Your task to perform on an android device: install app "Indeed Job Search" Image 0: 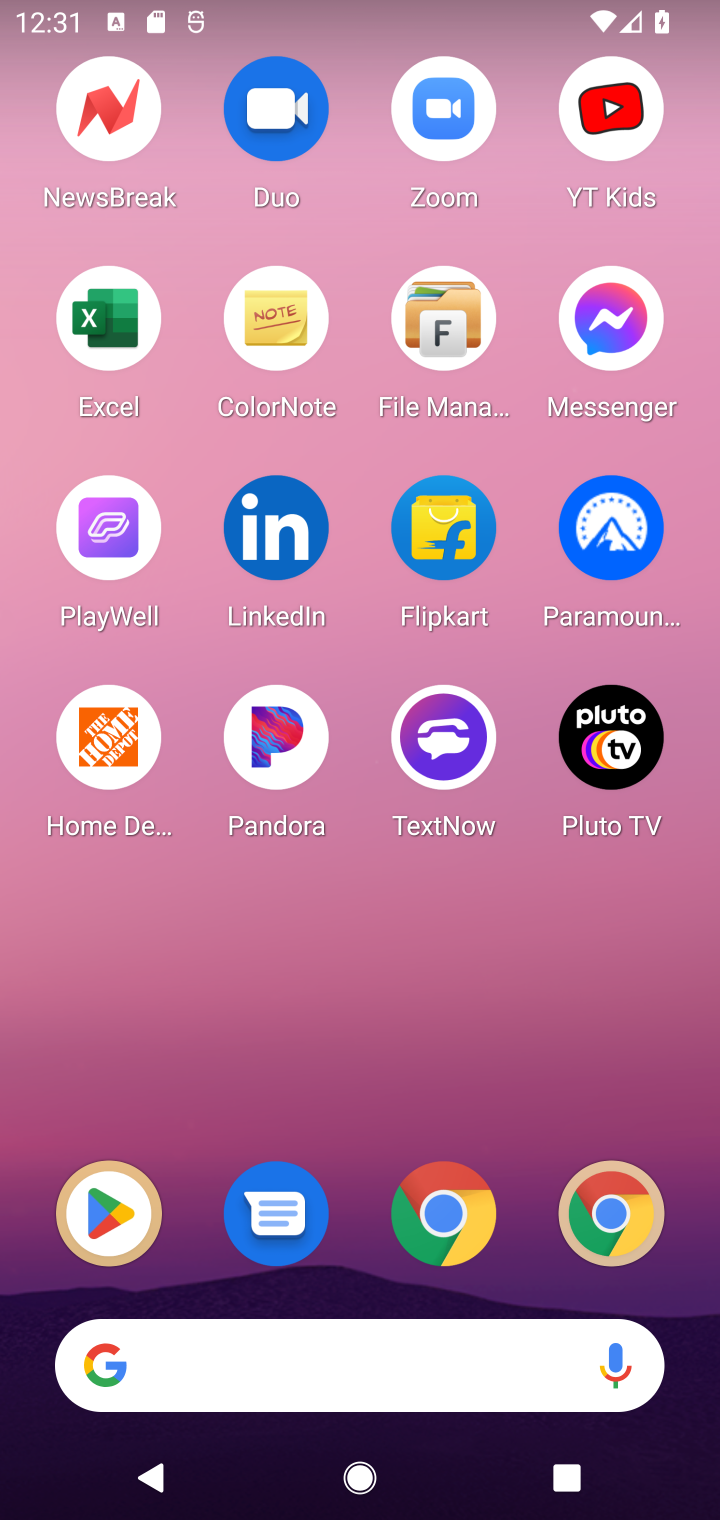
Step 0: drag from (397, 1514) to (428, 90)
Your task to perform on an android device: install app "Indeed Job Search" Image 1: 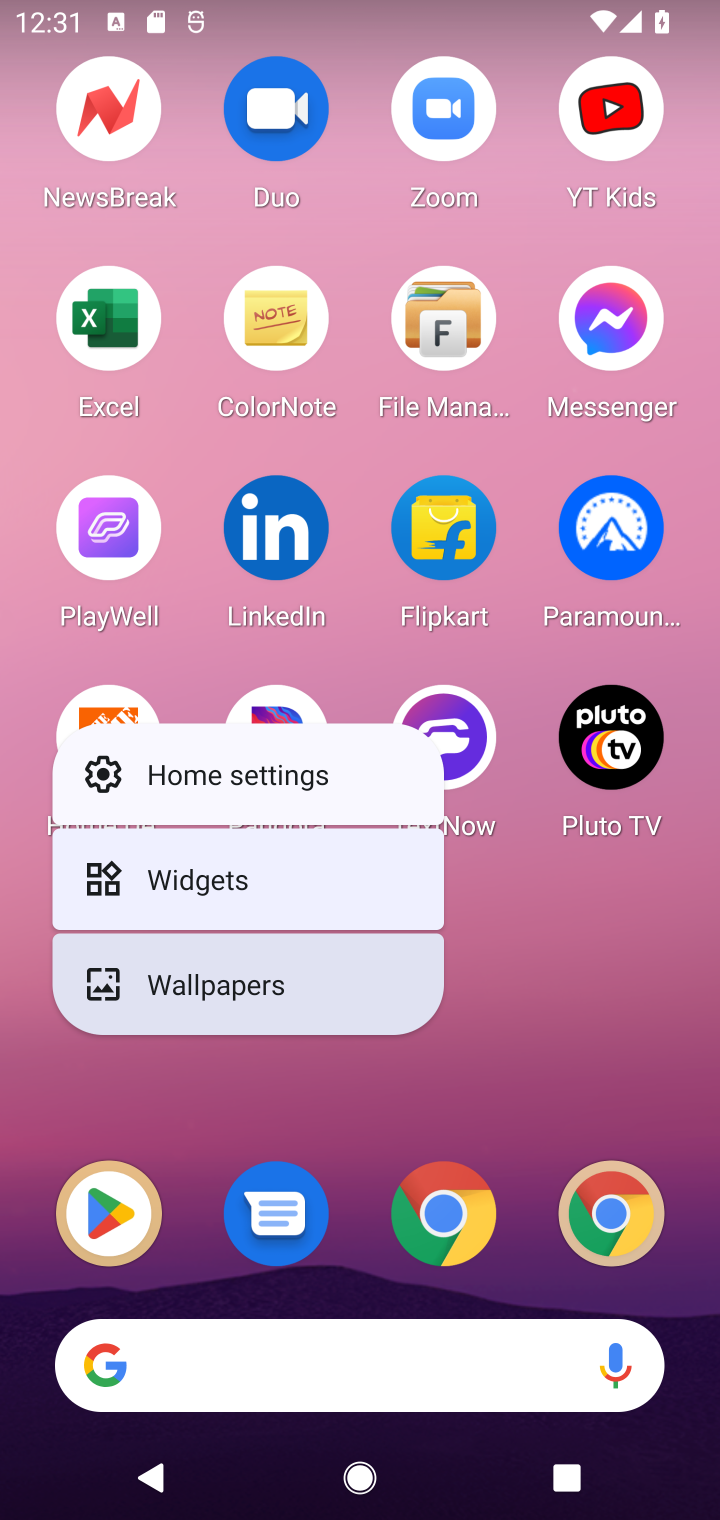
Step 1: click (522, 958)
Your task to perform on an android device: install app "Indeed Job Search" Image 2: 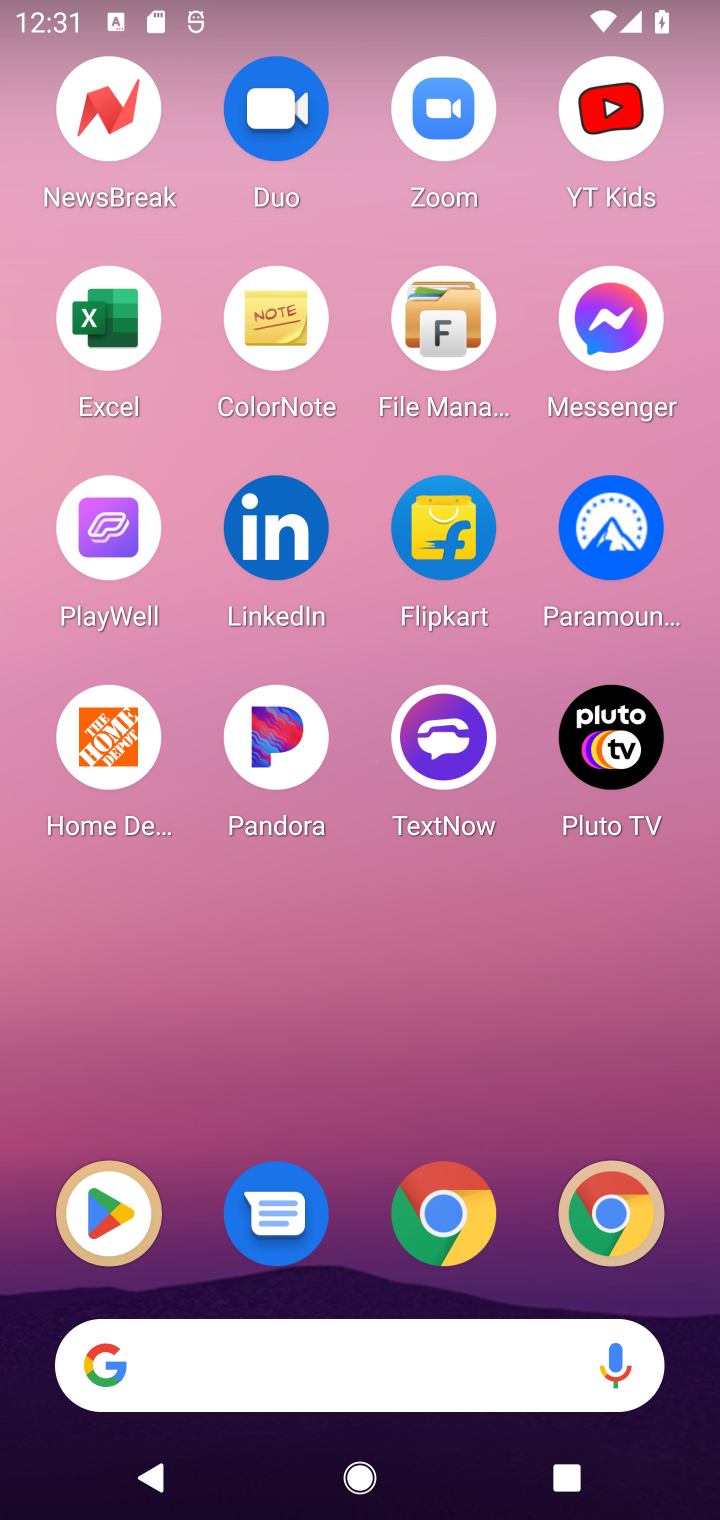
Step 2: drag from (415, 1138) to (339, 165)
Your task to perform on an android device: install app "Indeed Job Search" Image 3: 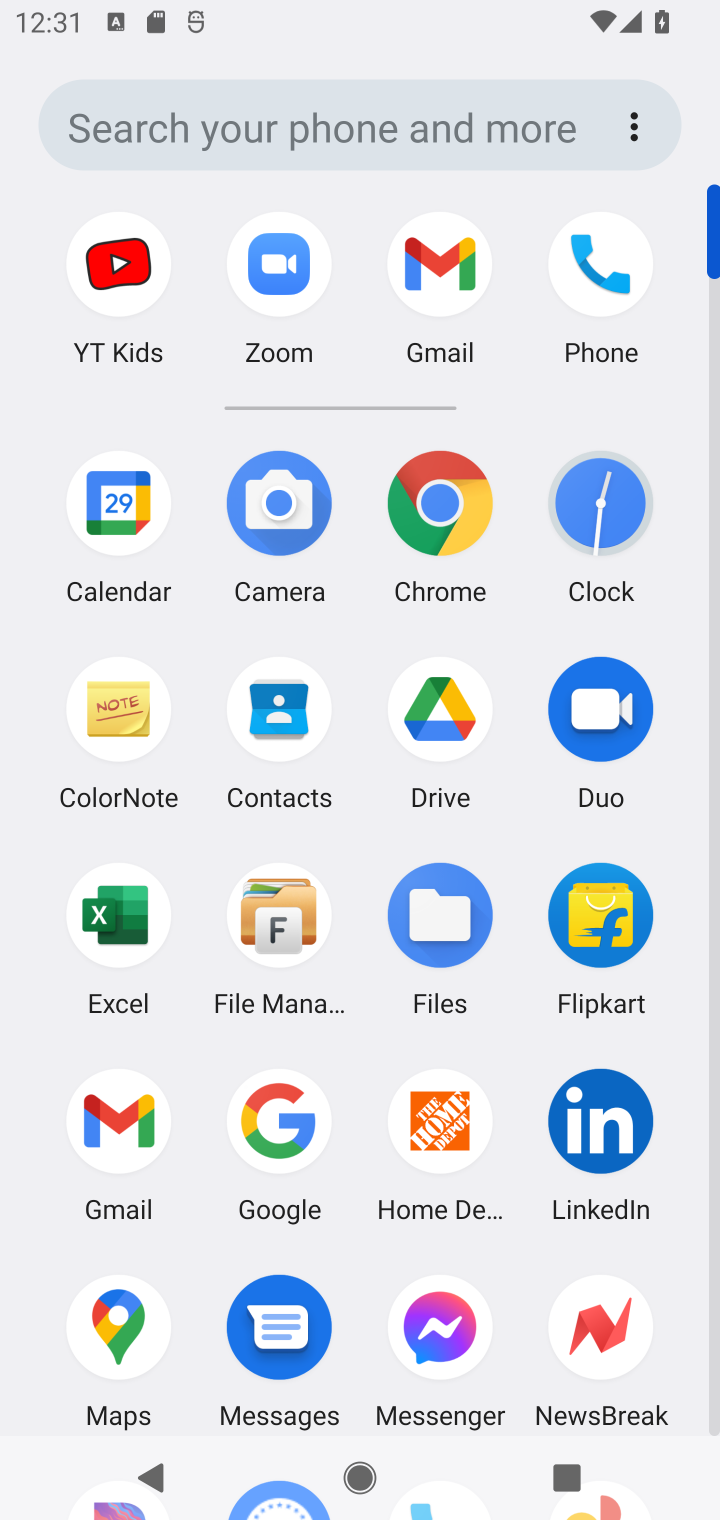
Step 3: drag from (375, 1338) to (461, 582)
Your task to perform on an android device: install app "Indeed Job Search" Image 4: 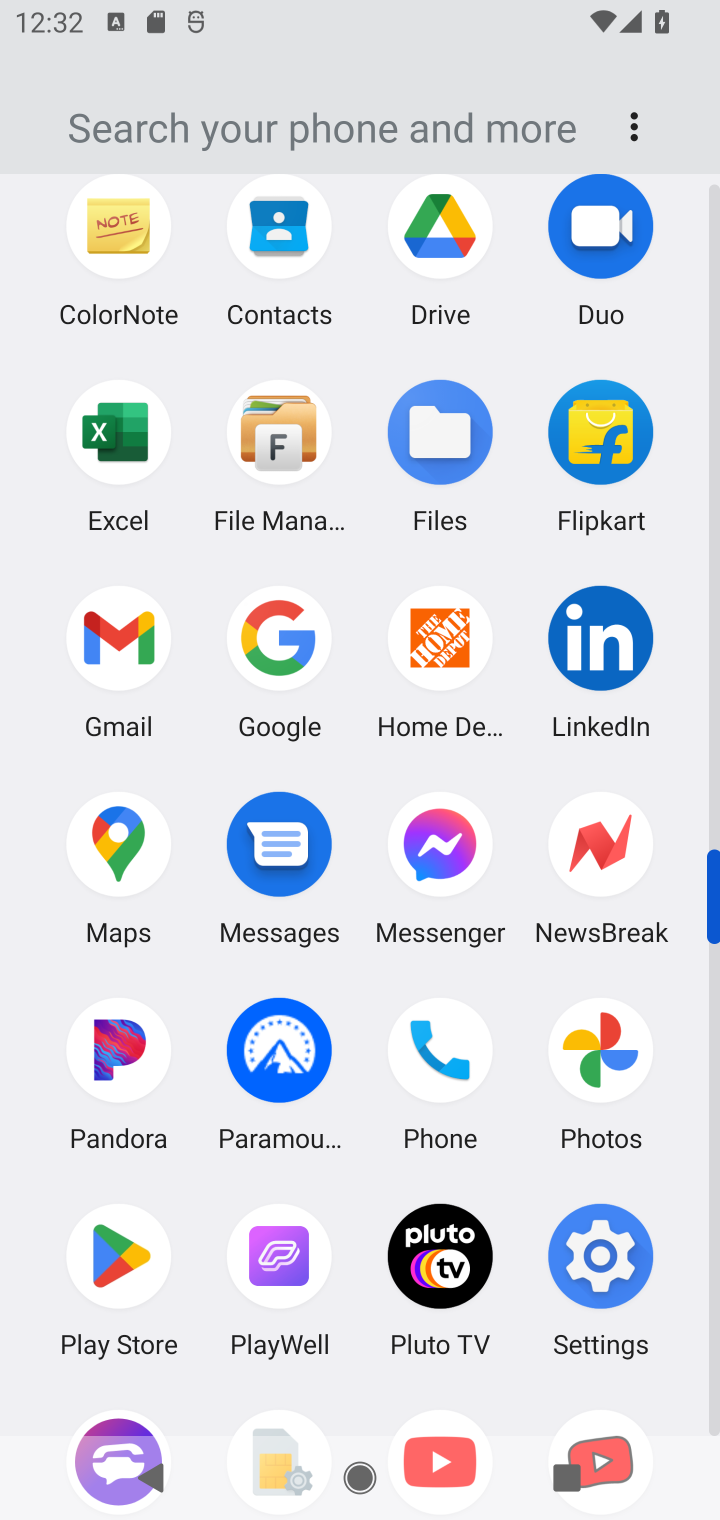
Step 4: click (111, 1258)
Your task to perform on an android device: install app "Indeed Job Search" Image 5: 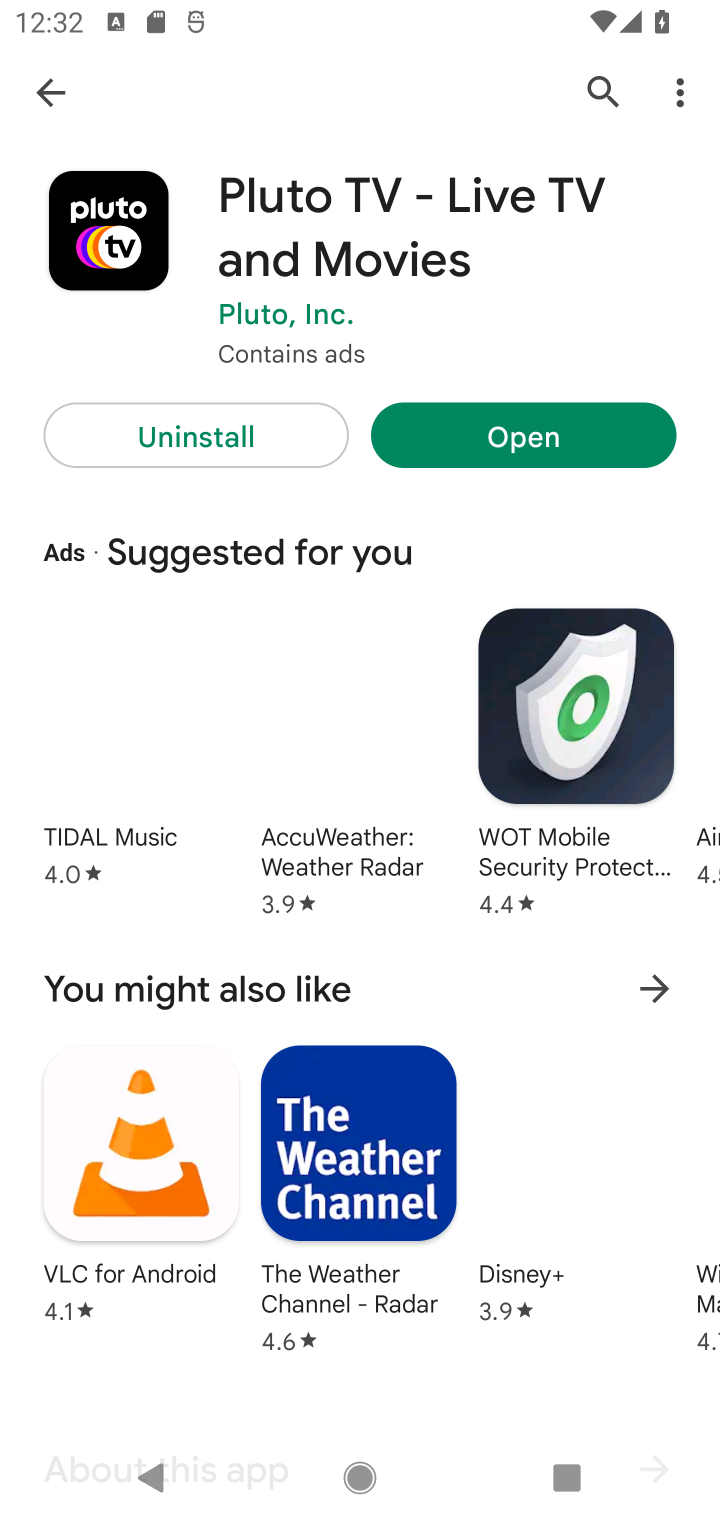
Step 5: click (586, 79)
Your task to perform on an android device: install app "Indeed Job Search" Image 6: 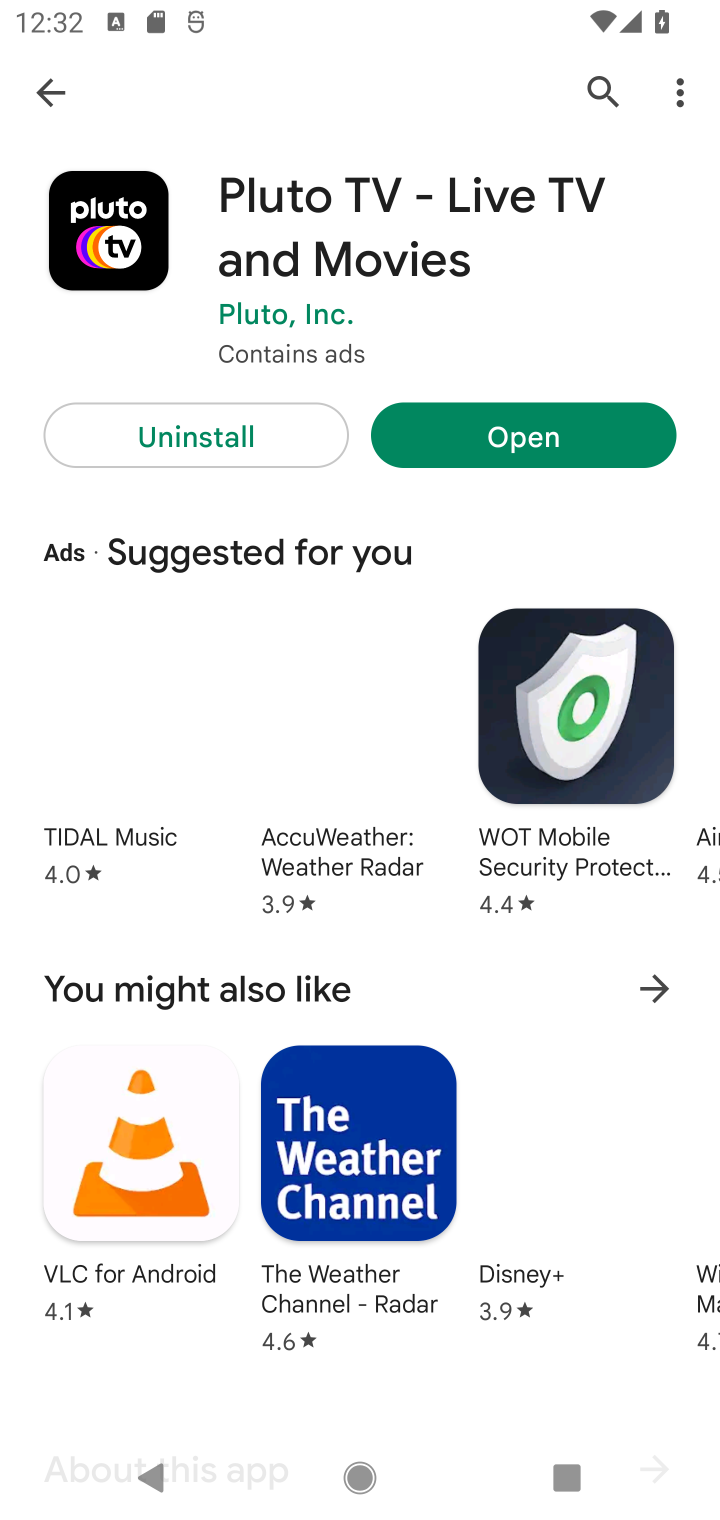
Step 6: click (595, 84)
Your task to perform on an android device: install app "Indeed Job Search" Image 7: 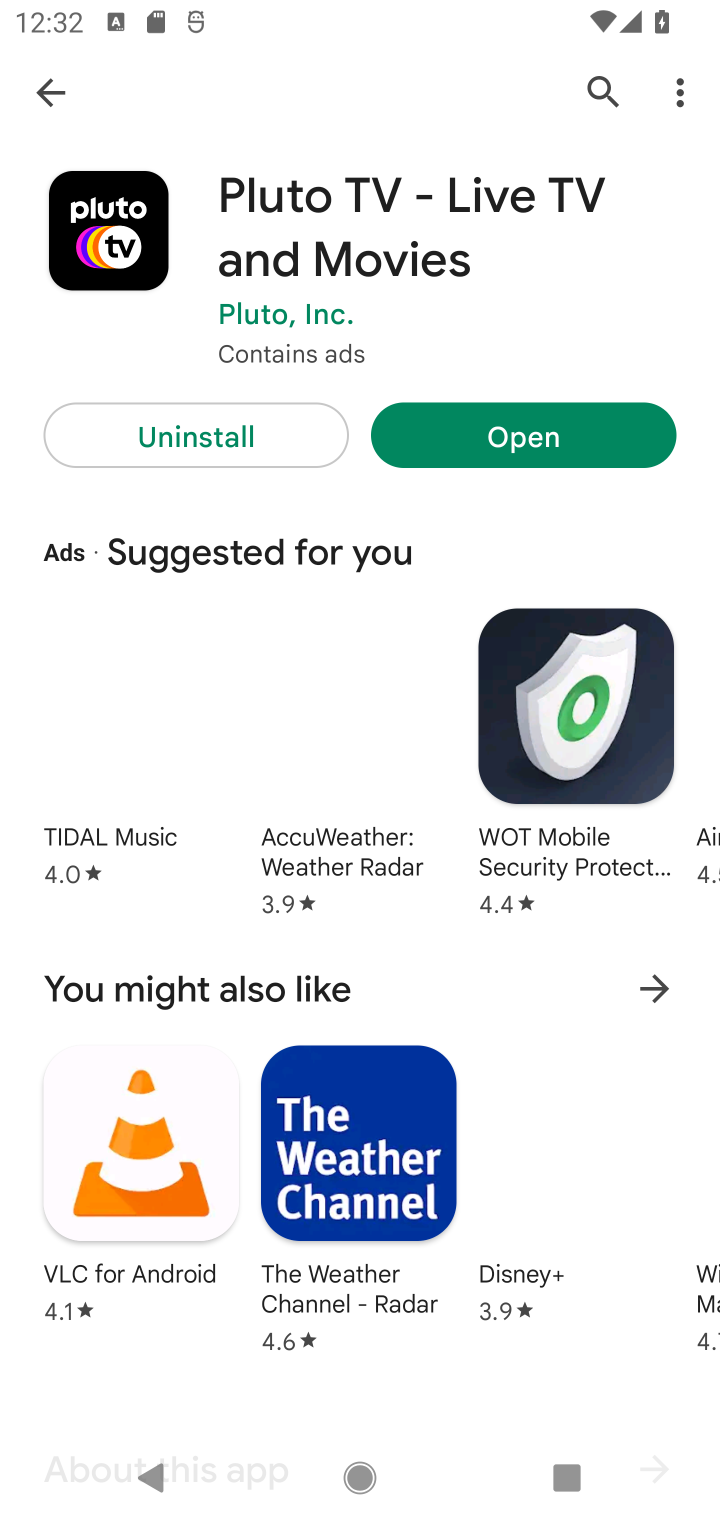
Step 7: click (592, 82)
Your task to perform on an android device: install app "Indeed Job Search" Image 8: 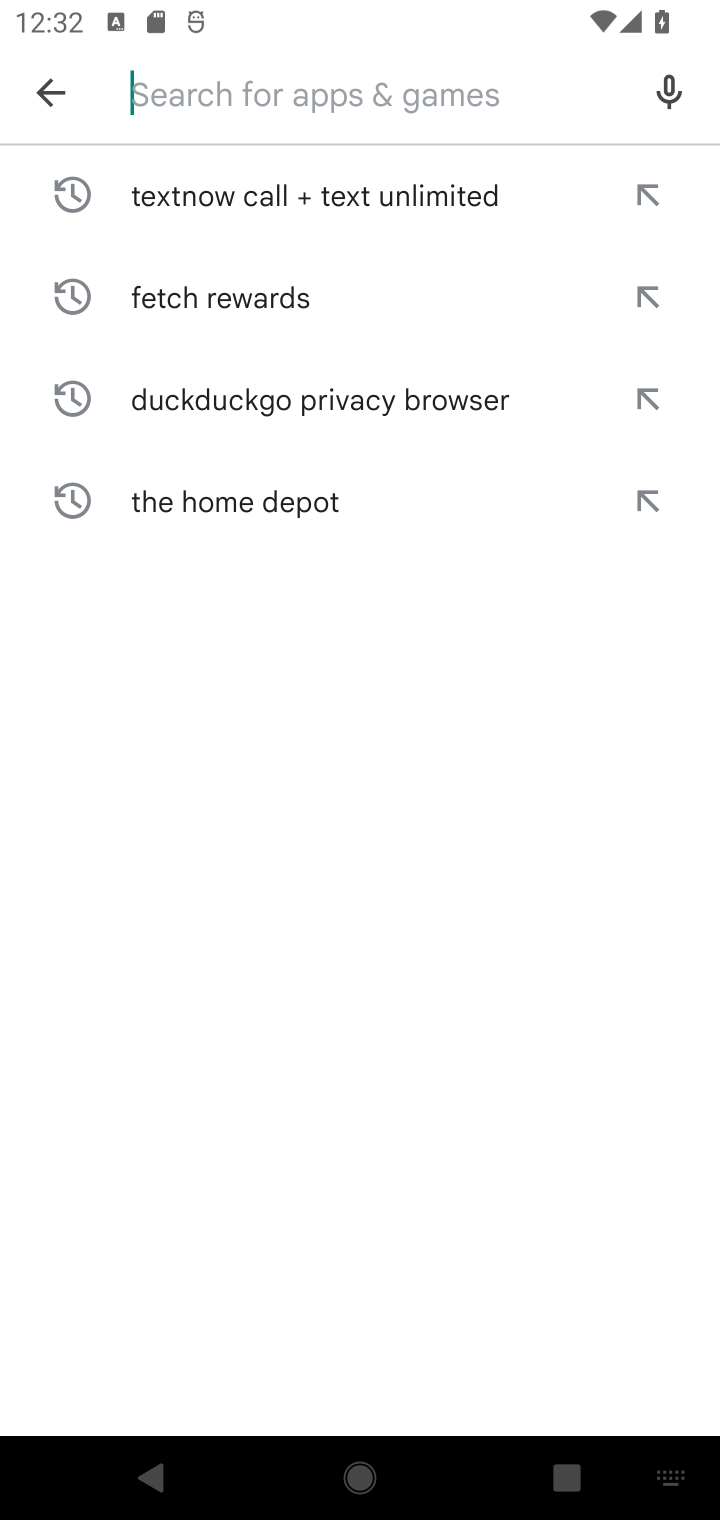
Step 8: type "Indeed Job Search"
Your task to perform on an android device: install app "Indeed Job Search" Image 9: 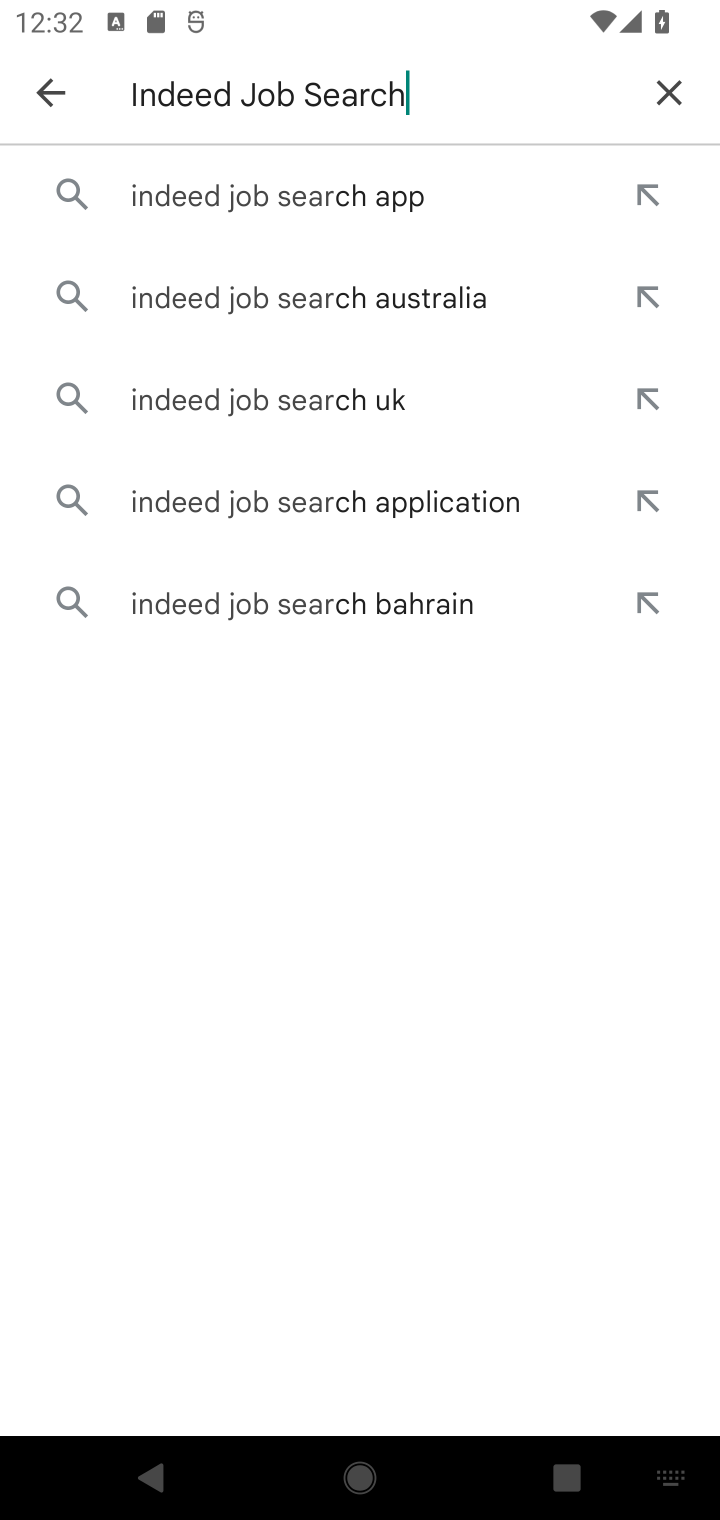
Step 9: type ""
Your task to perform on an android device: install app "Indeed Job Search" Image 10: 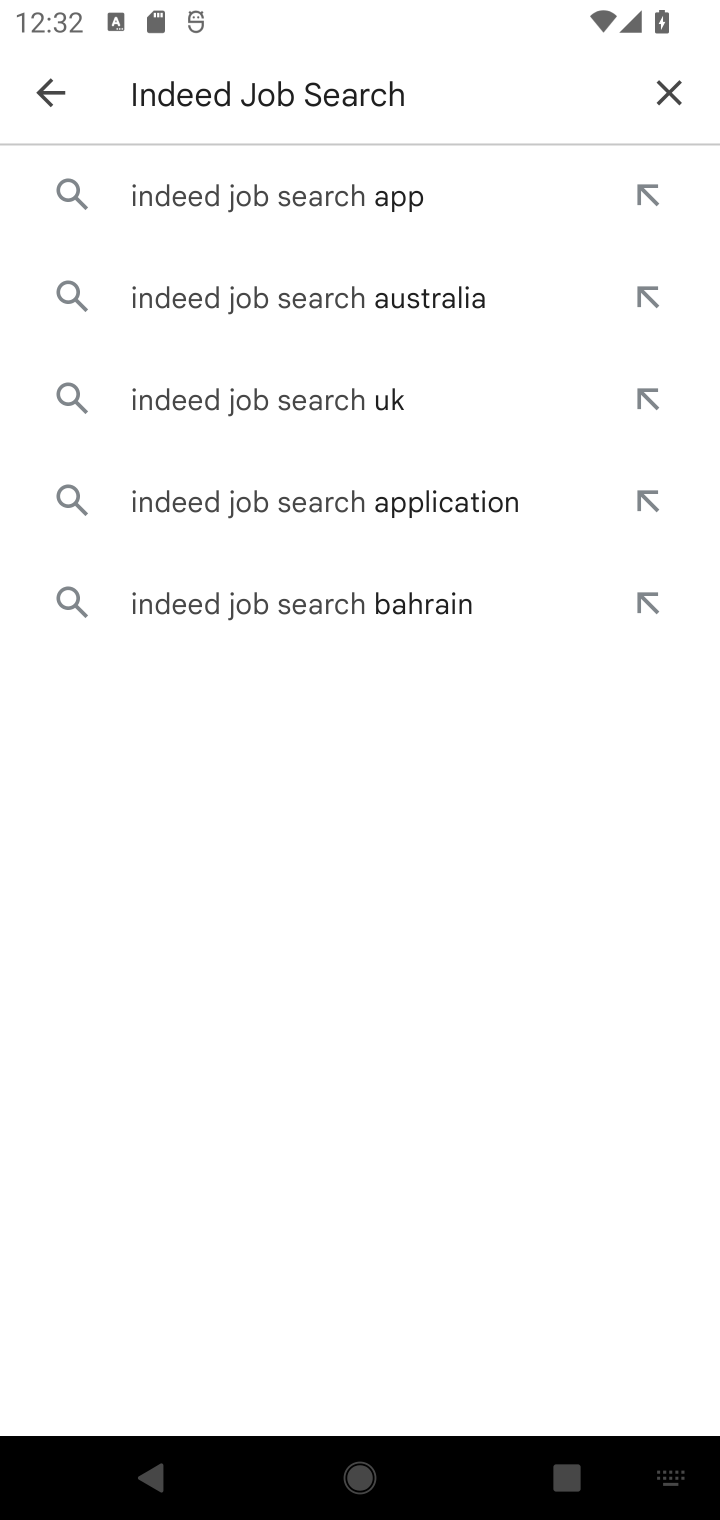
Step 10: click (349, 191)
Your task to perform on an android device: install app "Indeed Job Search" Image 11: 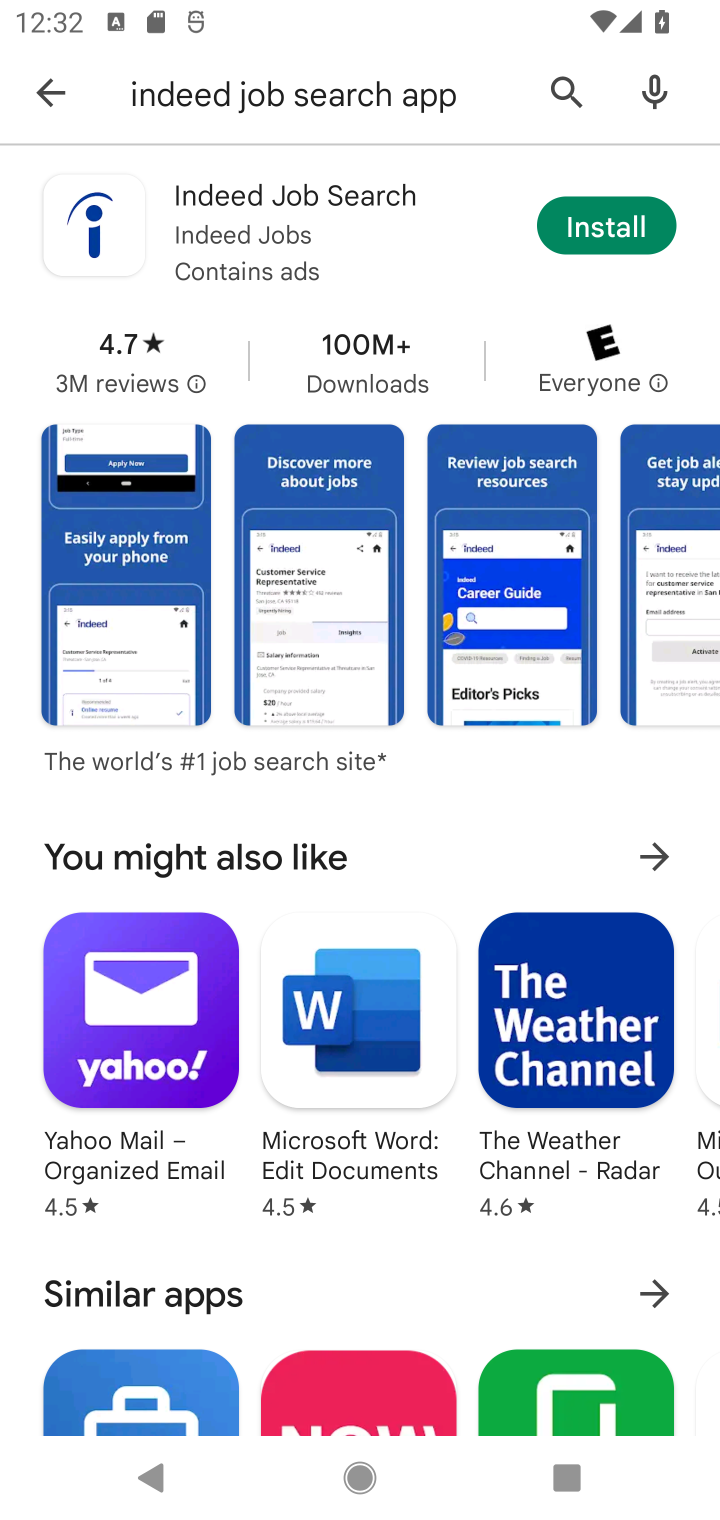
Step 11: click (603, 215)
Your task to perform on an android device: install app "Indeed Job Search" Image 12: 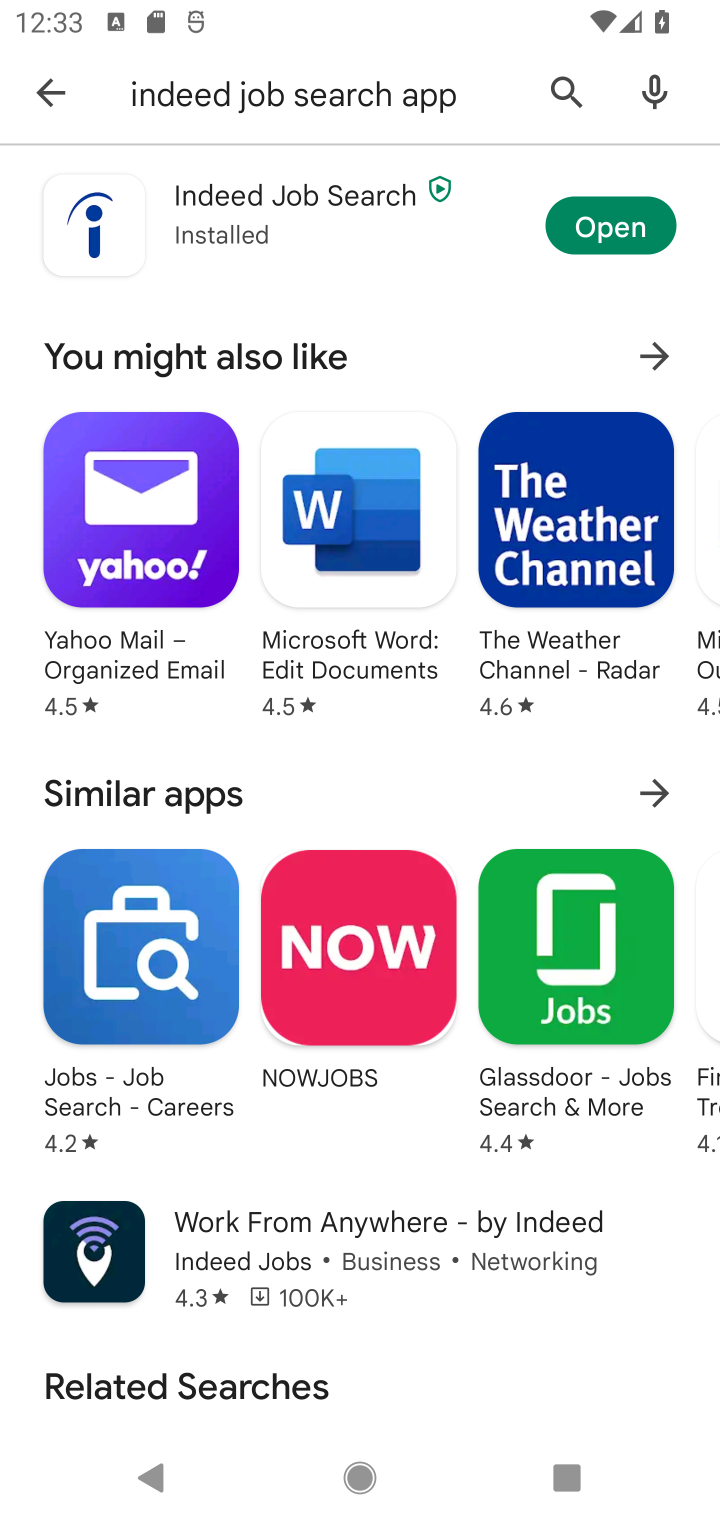
Step 12: task complete